Your task to perform on an android device: Set the phone to "Do not disturb". Image 0: 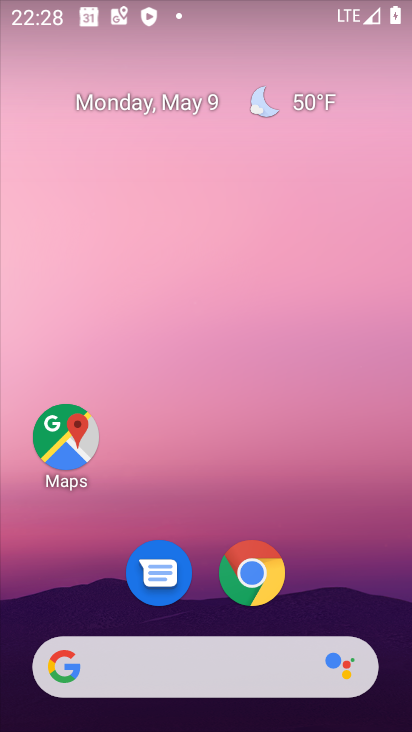
Step 0: drag from (232, 6) to (249, 502)
Your task to perform on an android device: Set the phone to "Do not disturb". Image 1: 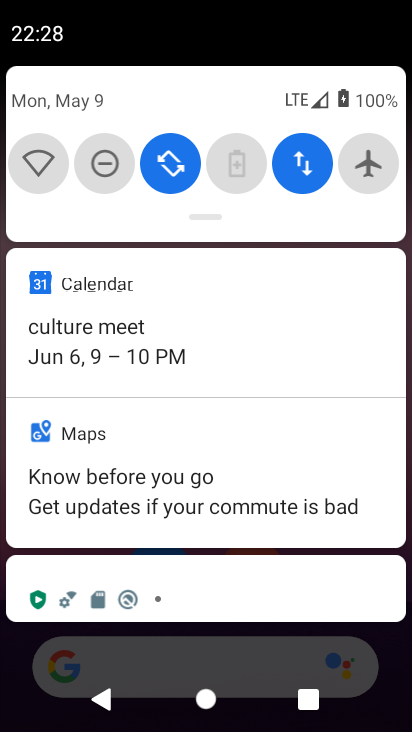
Step 1: click (111, 154)
Your task to perform on an android device: Set the phone to "Do not disturb". Image 2: 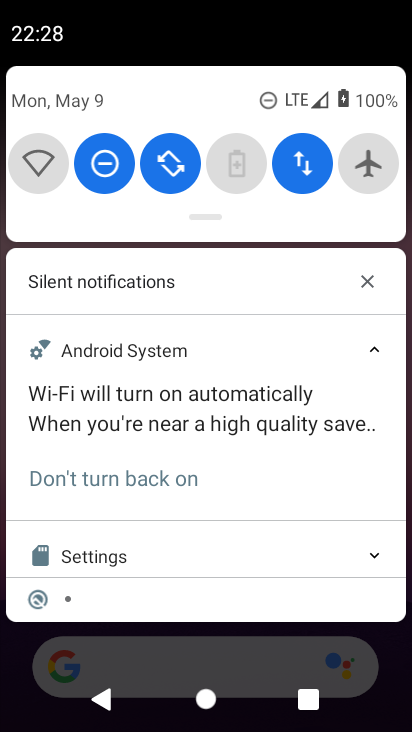
Step 2: task complete